Your task to perform on an android device: Open settings on Google Maps Image 0: 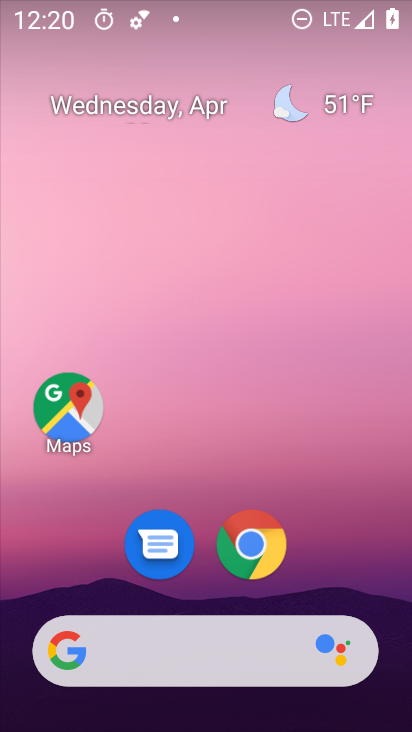
Step 0: drag from (339, 562) to (372, 159)
Your task to perform on an android device: Open settings on Google Maps Image 1: 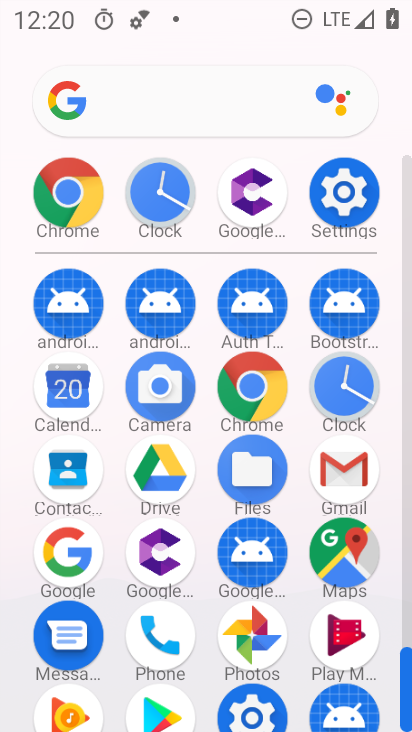
Step 1: click (356, 551)
Your task to perform on an android device: Open settings on Google Maps Image 2: 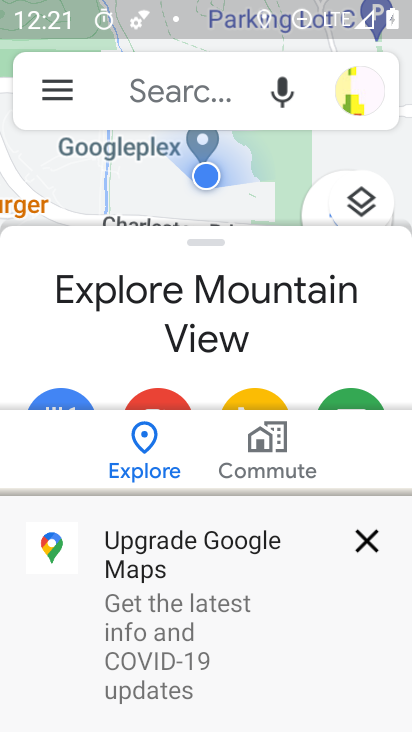
Step 2: click (64, 97)
Your task to perform on an android device: Open settings on Google Maps Image 3: 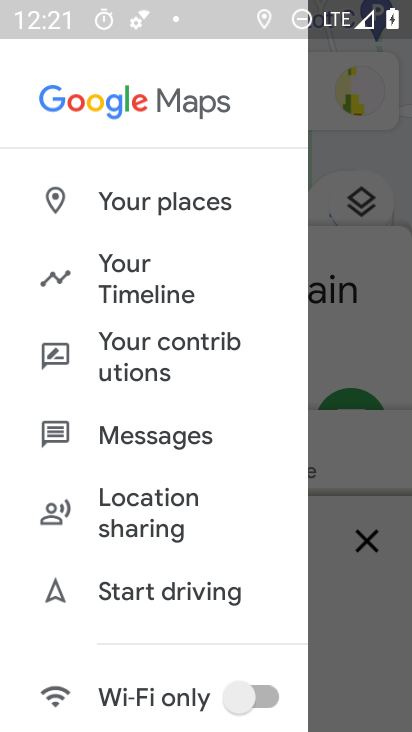
Step 3: drag from (248, 529) to (268, 378)
Your task to perform on an android device: Open settings on Google Maps Image 4: 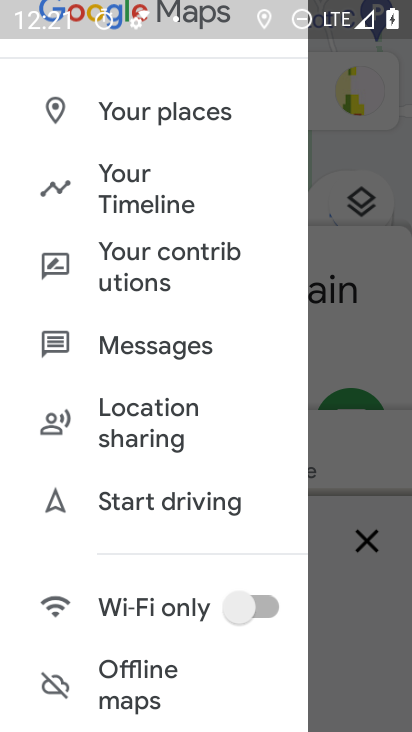
Step 4: drag from (262, 528) to (263, 388)
Your task to perform on an android device: Open settings on Google Maps Image 5: 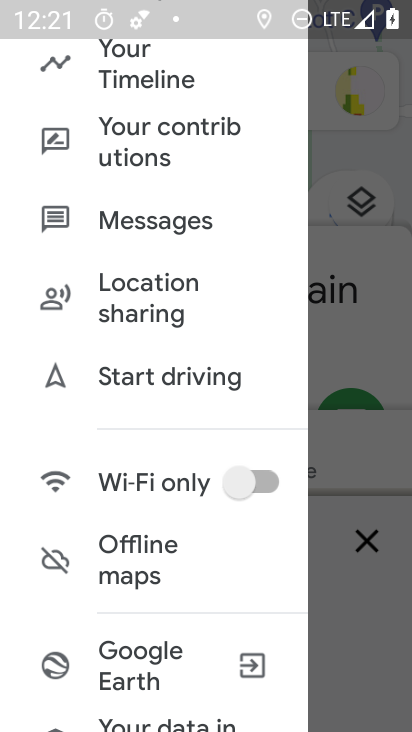
Step 5: drag from (257, 572) to (274, 421)
Your task to perform on an android device: Open settings on Google Maps Image 6: 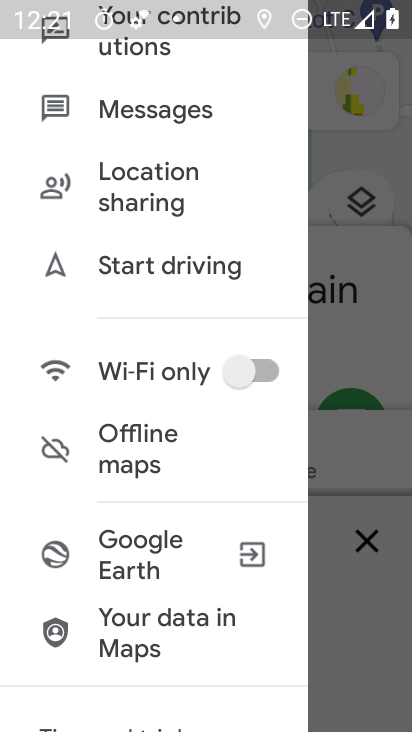
Step 6: drag from (272, 637) to (294, 474)
Your task to perform on an android device: Open settings on Google Maps Image 7: 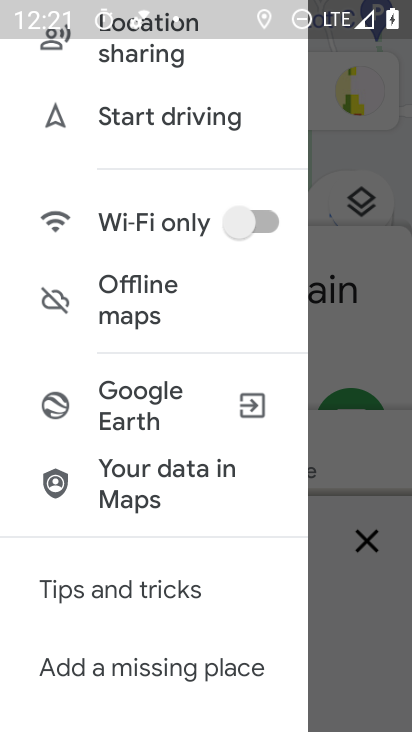
Step 7: drag from (272, 624) to (279, 469)
Your task to perform on an android device: Open settings on Google Maps Image 8: 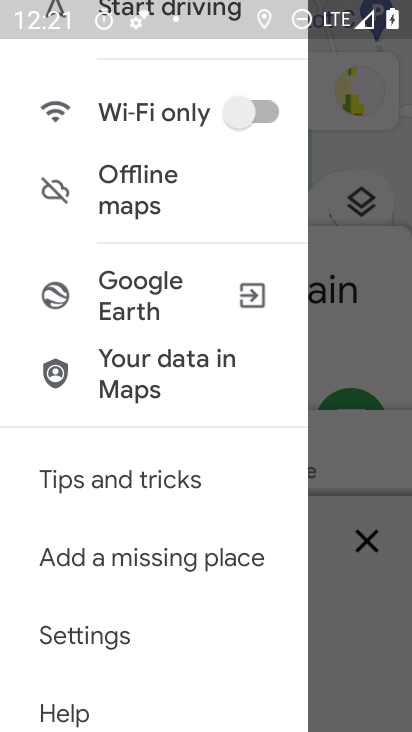
Step 8: drag from (245, 664) to (259, 475)
Your task to perform on an android device: Open settings on Google Maps Image 9: 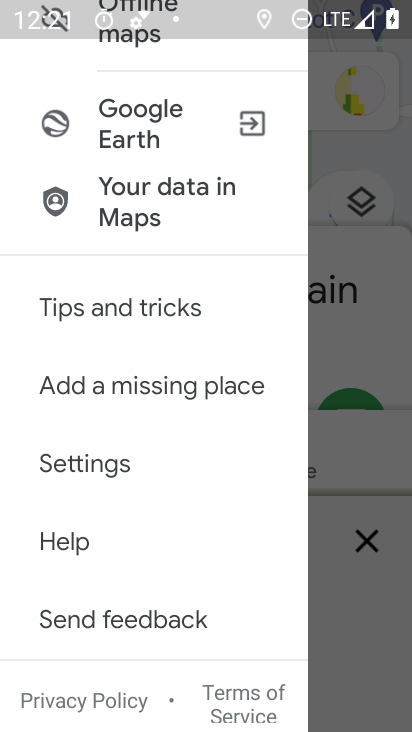
Step 9: drag from (239, 642) to (256, 448)
Your task to perform on an android device: Open settings on Google Maps Image 10: 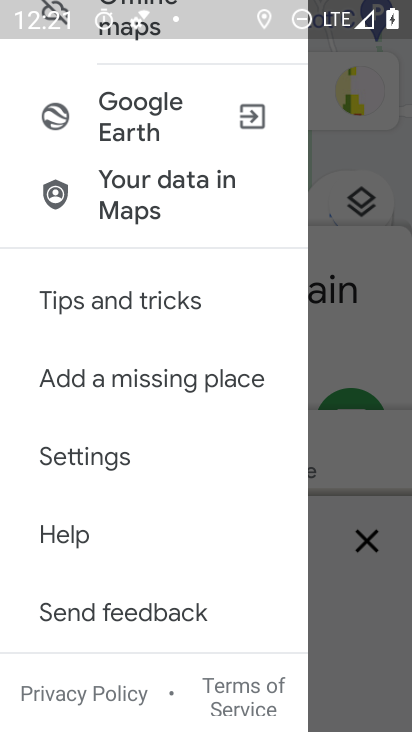
Step 10: click (108, 459)
Your task to perform on an android device: Open settings on Google Maps Image 11: 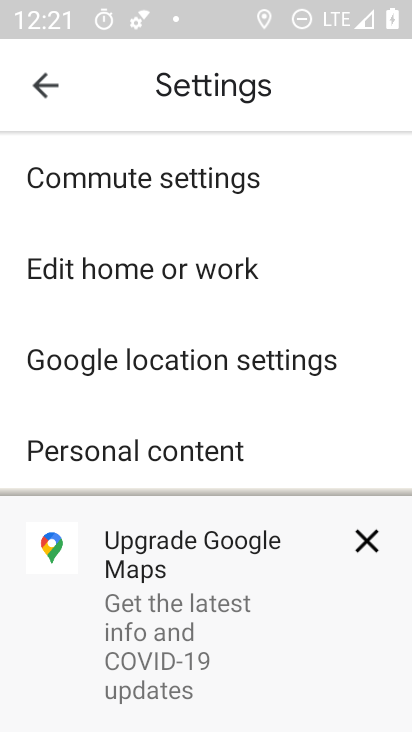
Step 11: task complete